Your task to perform on an android device: Open settings Image 0: 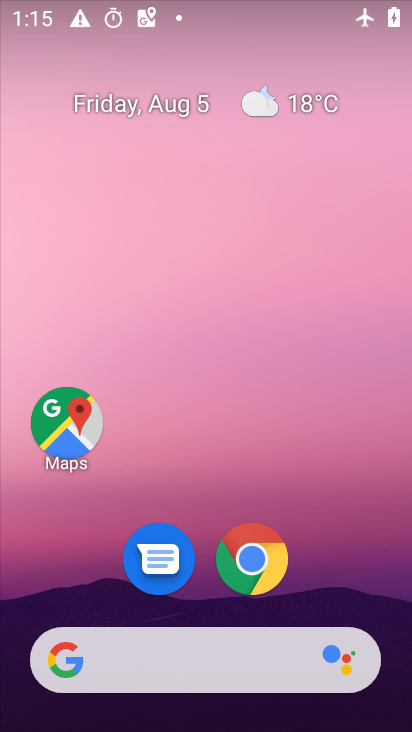
Step 0: drag from (31, 687) to (79, 490)
Your task to perform on an android device: Open settings Image 1: 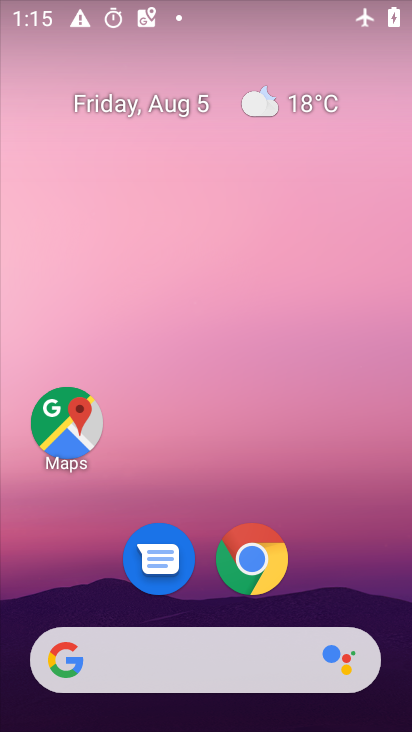
Step 1: drag from (110, 592) to (237, 166)
Your task to perform on an android device: Open settings Image 2: 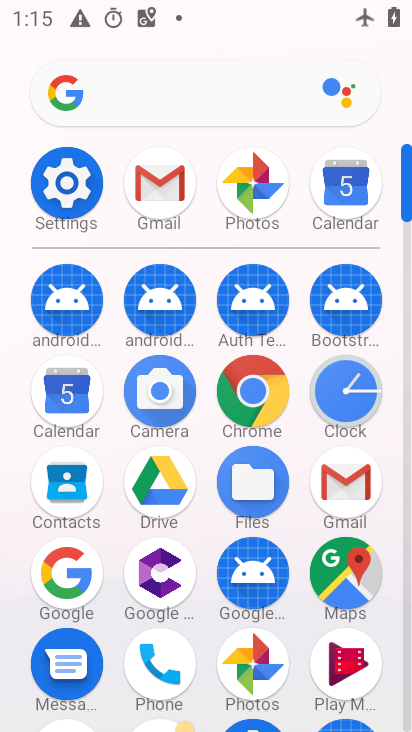
Step 2: click (59, 180)
Your task to perform on an android device: Open settings Image 3: 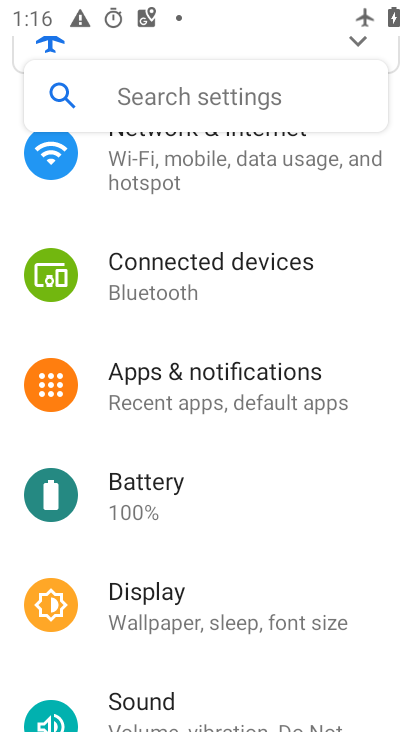
Step 3: task complete